Your task to perform on an android device: delete the emails in spam in the gmail app Image 0: 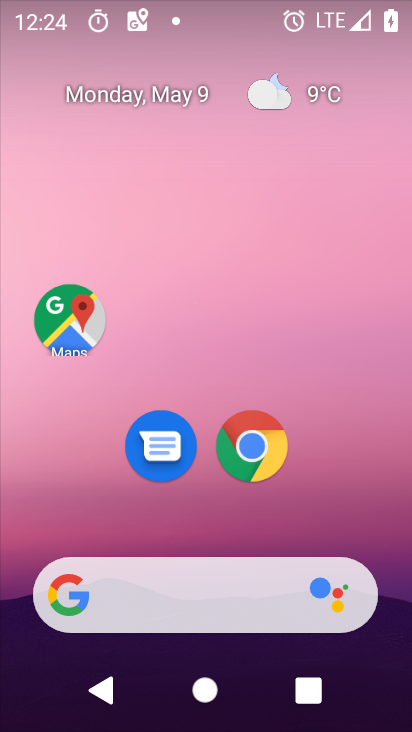
Step 0: drag from (338, 524) to (345, 5)
Your task to perform on an android device: delete the emails in spam in the gmail app Image 1: 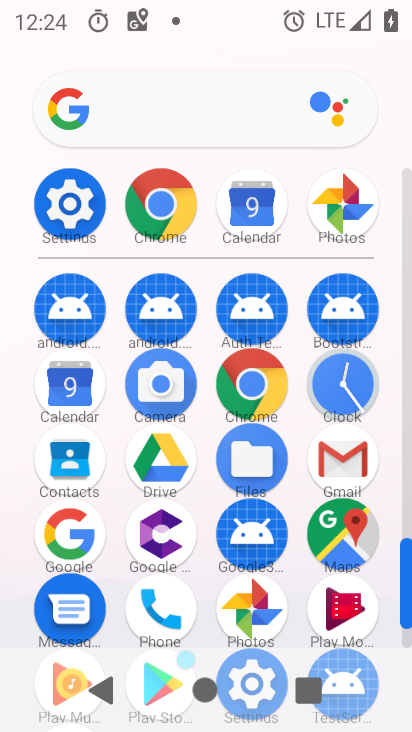
Step 1: click (351, 455)
Your task to perform on an android device: delete the emails in spam in the gmail app Image 2: 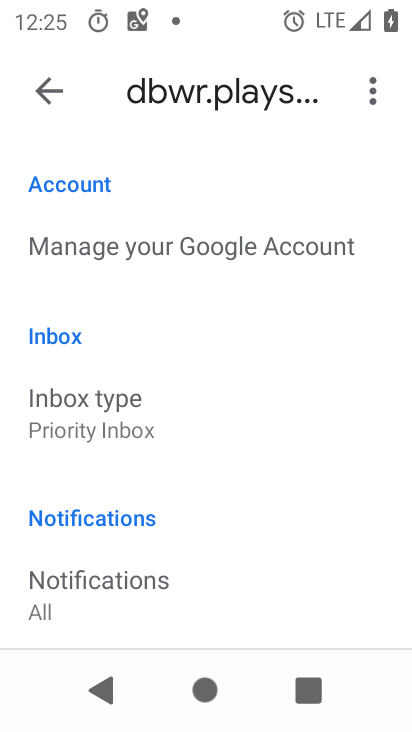
Step 2: click (38, 92)
Your task to perform on an android device: delete the emails in spam in the gmail app Image 3: 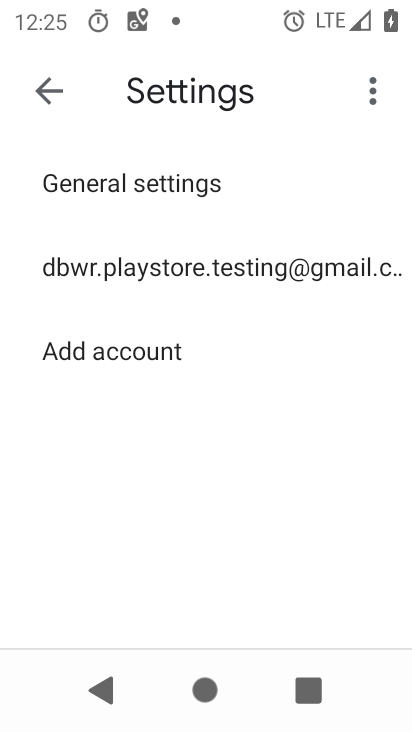
Step 3: click (38, 92)
Your task to perform on an android device: delete the emails in spam in the gmail app Image 4: 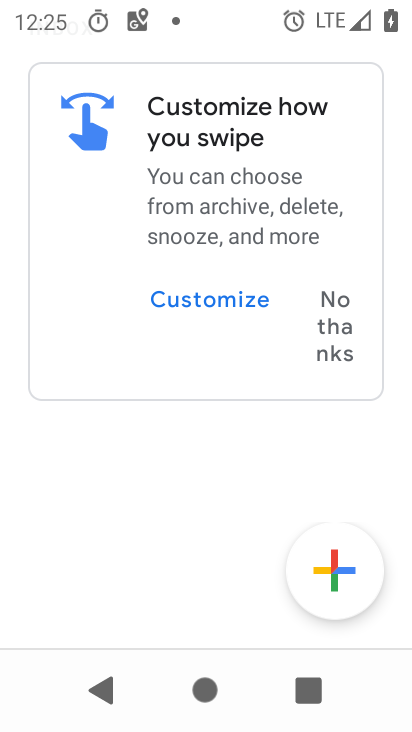
Step 4: drag from (139, 475) to (170, 538)
Your task to perform on an android device: delete the emails in spam in the gmail app Image 5: 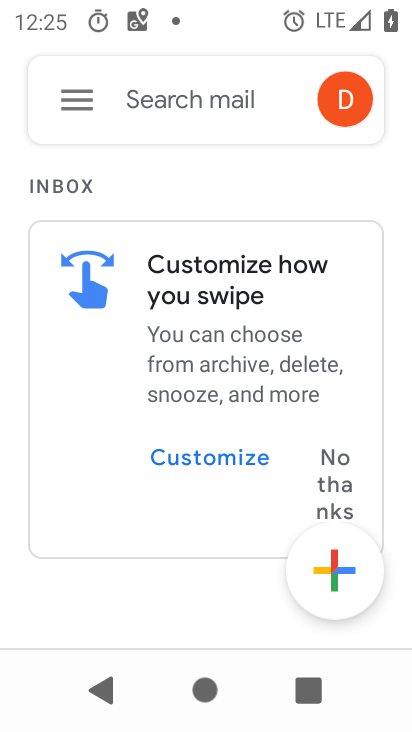
Step 5: click (68, 103)
Your task to perform on an android device: delete the emails in spam in the gmail app Image 6: 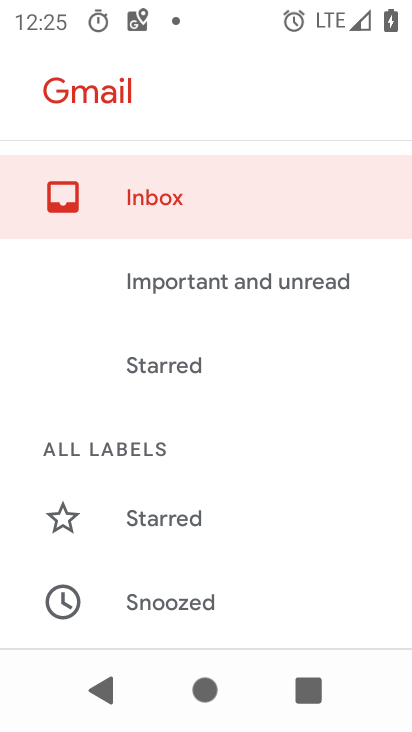
Step 6: drag from (226, 545) to (241, 161)
Your task to perform on an android device: delete the emails in spam in the gmail app Image 7: 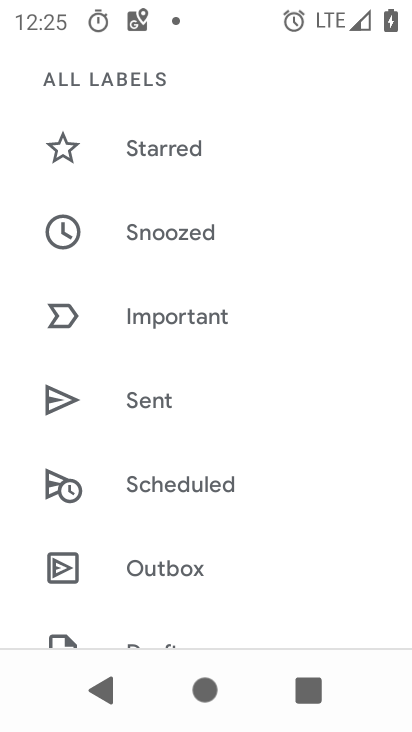
Step 7: drag from (179, 542) to (180, 177)
Your task to perform on an android device: delete the emails in spam in the gmail app Image 8: 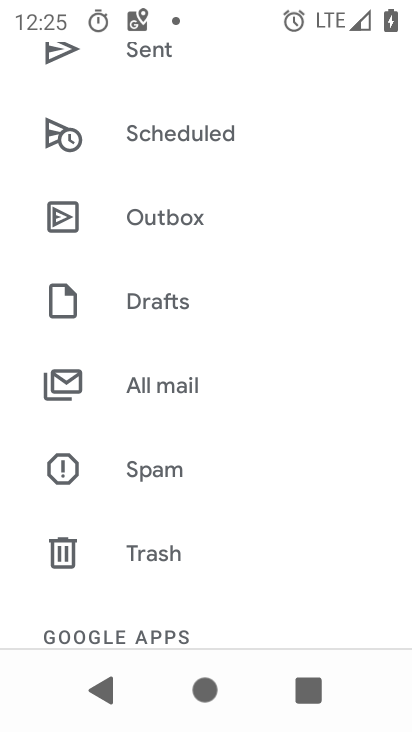
Step 8: click (146, 476)
Your task to perform on an android device: delete the emails in spam in the gmail app Image 9: 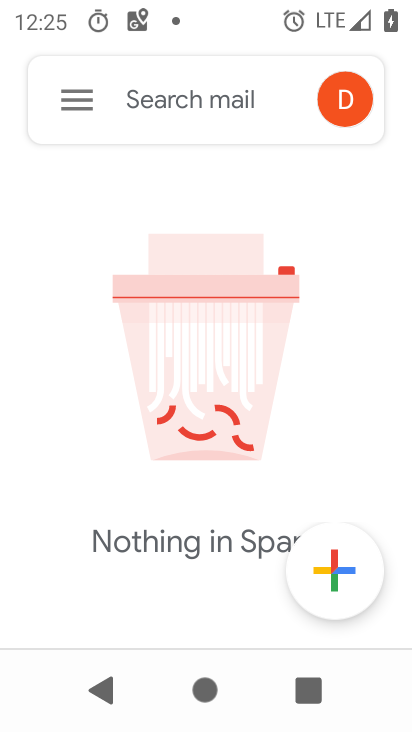
Step 9: task complete